Your task to perform on an android device: open app "eBay: The shopping marketplace" Image 0: 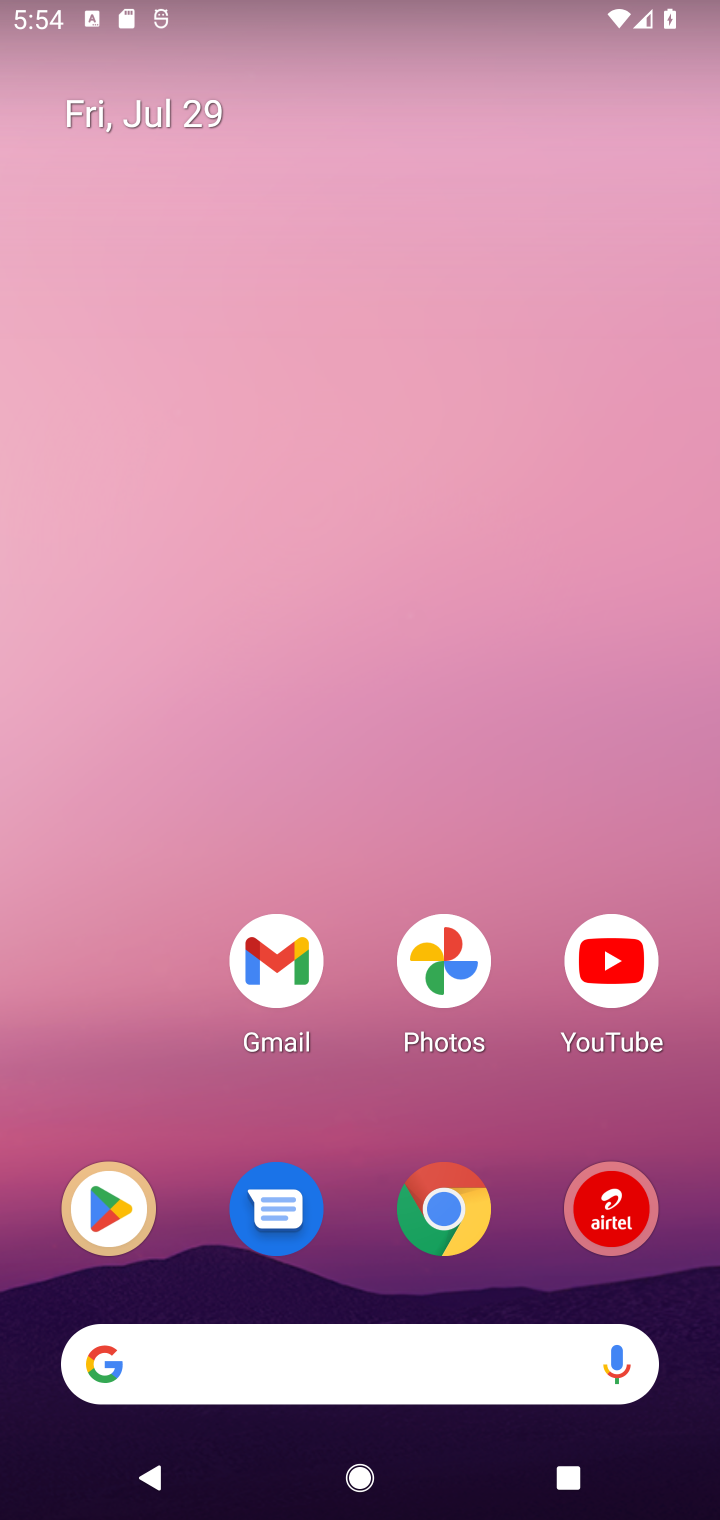
Step 0: click (89, 1210)
Your task to perform on an android device: open app "eBay: The shopping marketplace" Image 1: 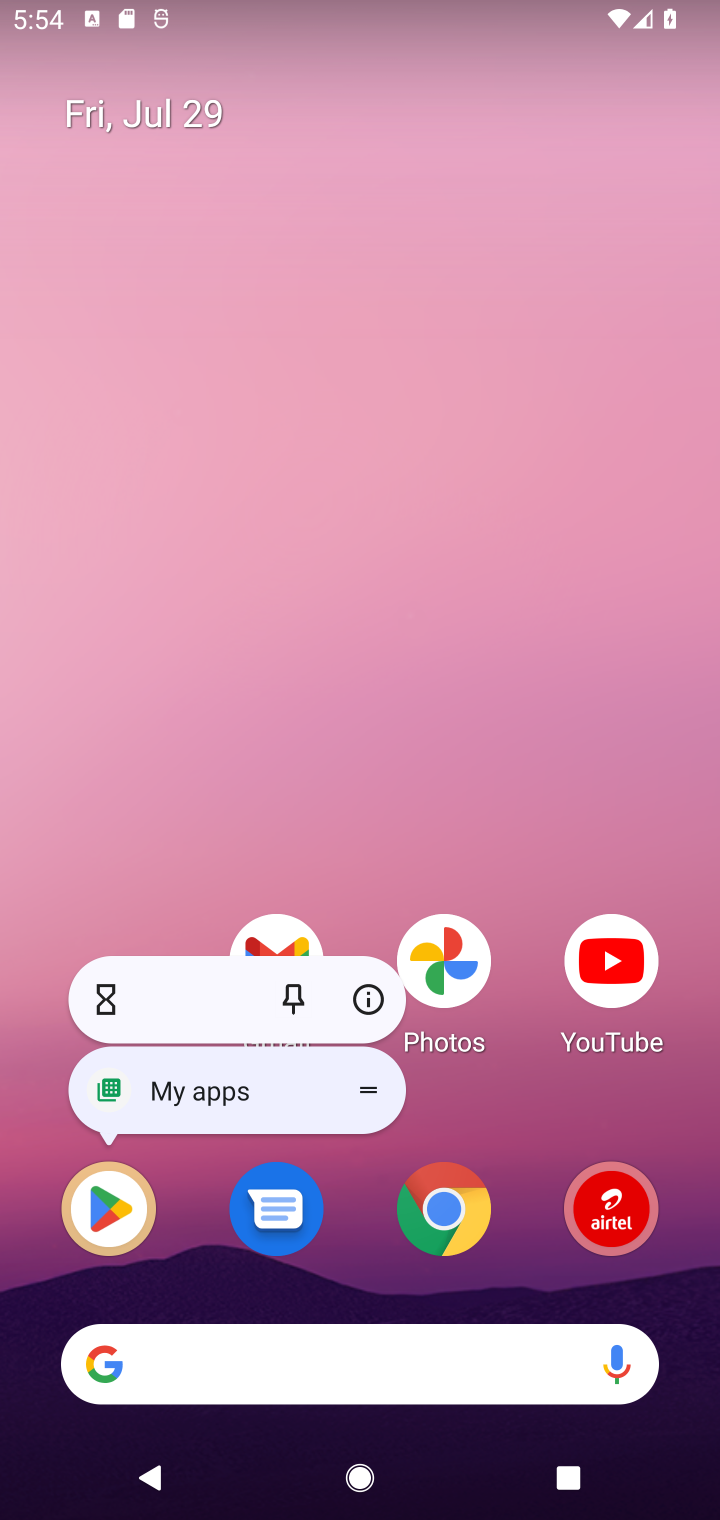
Step 1: click (95, 1229)
Your task to perform on an android device: open app "eBay: The shopping marketplace" Image 2: 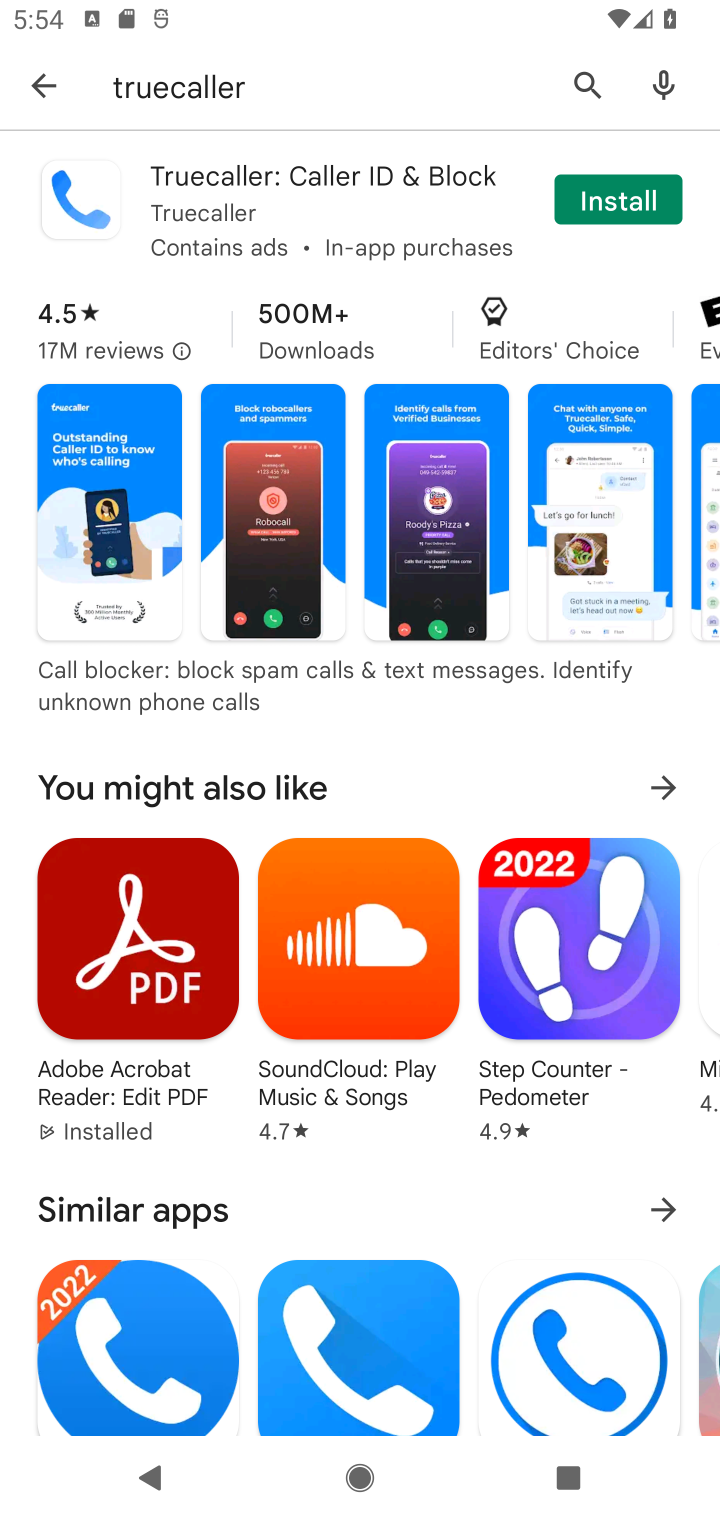
Step 2: click (597, 83)
Your task to perform on an android device: open app "eBay: The shopping marketplace" Image 3: 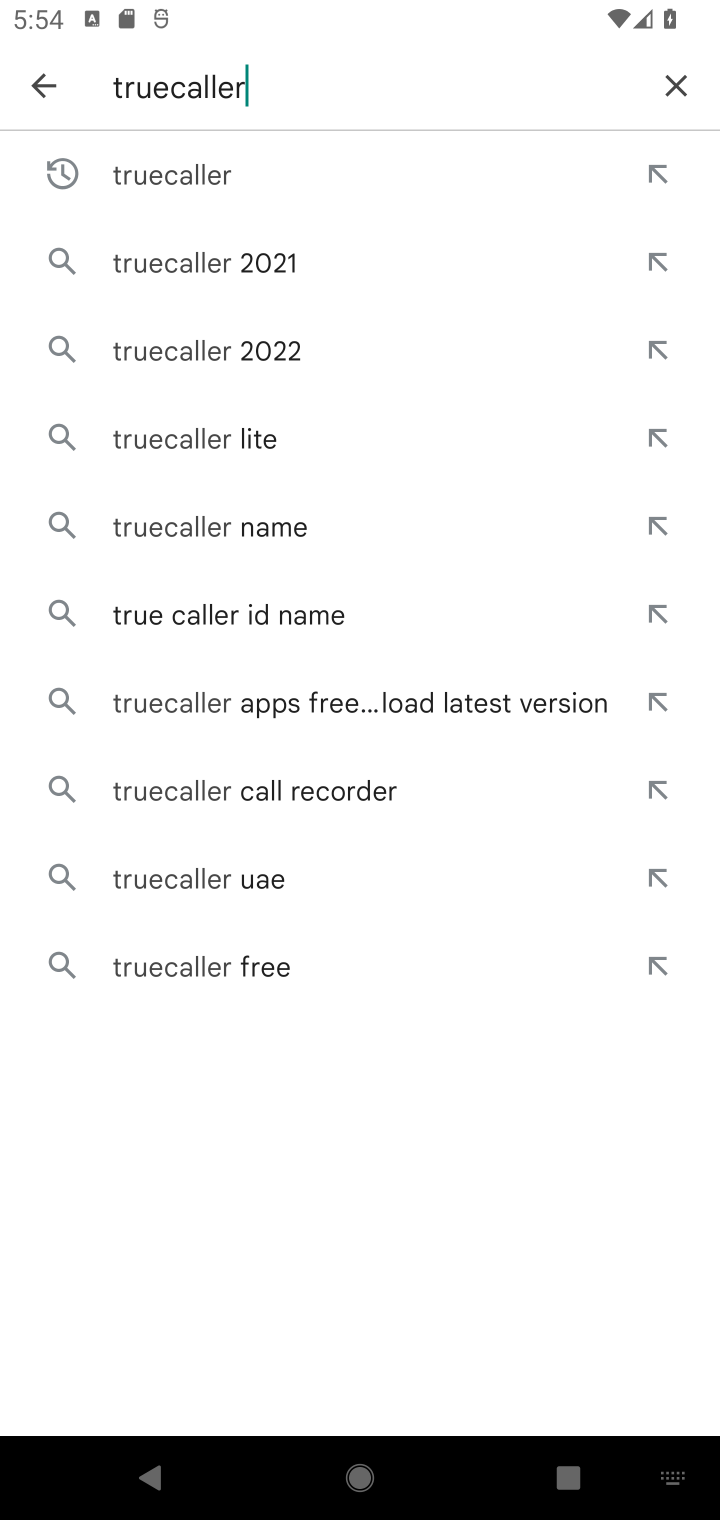
Step 3: click (667, 79)
Your task to perform on an android device: open app "eBay: The shopping marketplace" Image 4: 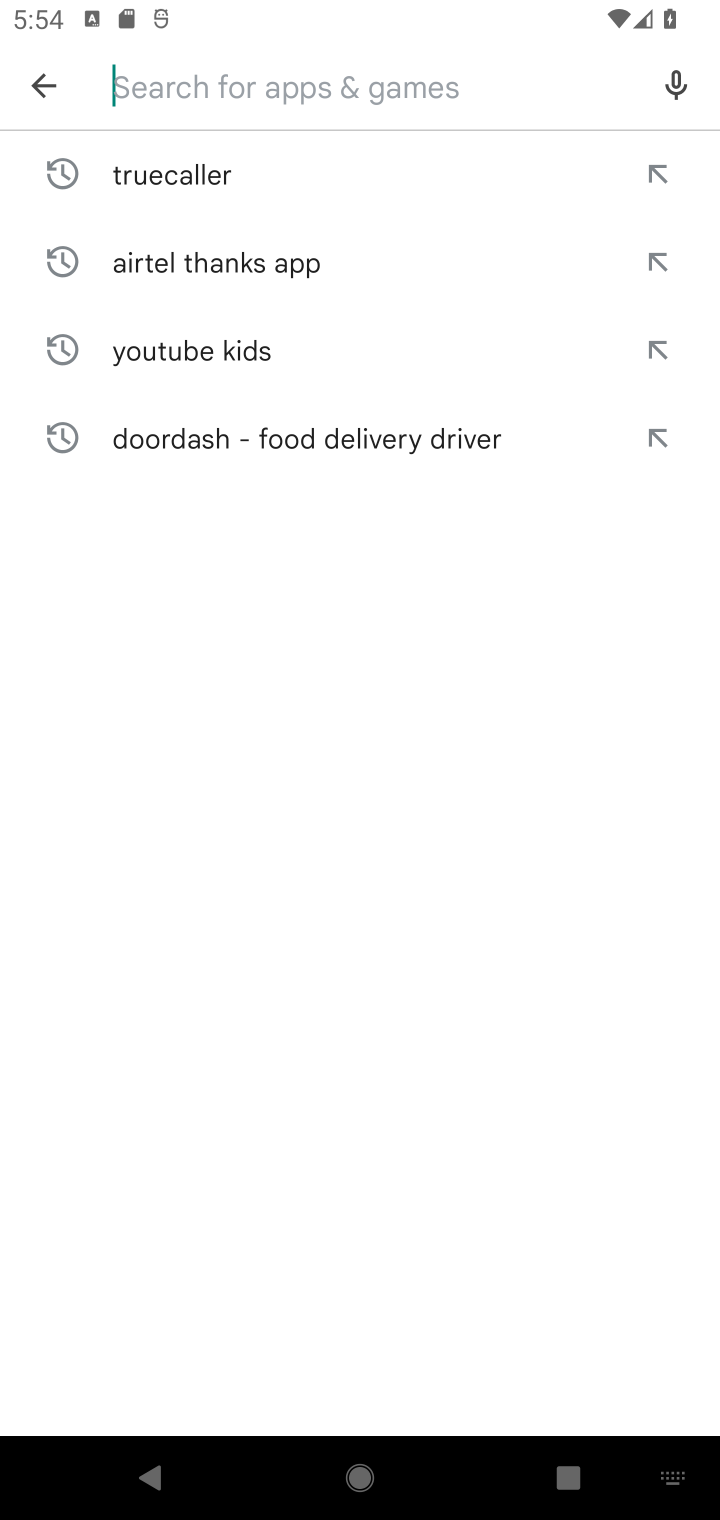
Step 4: type "eBay: The shopping marketplace"
Your task to perform on an android device: open app "eBay: The shopping marketplace" Image 5: 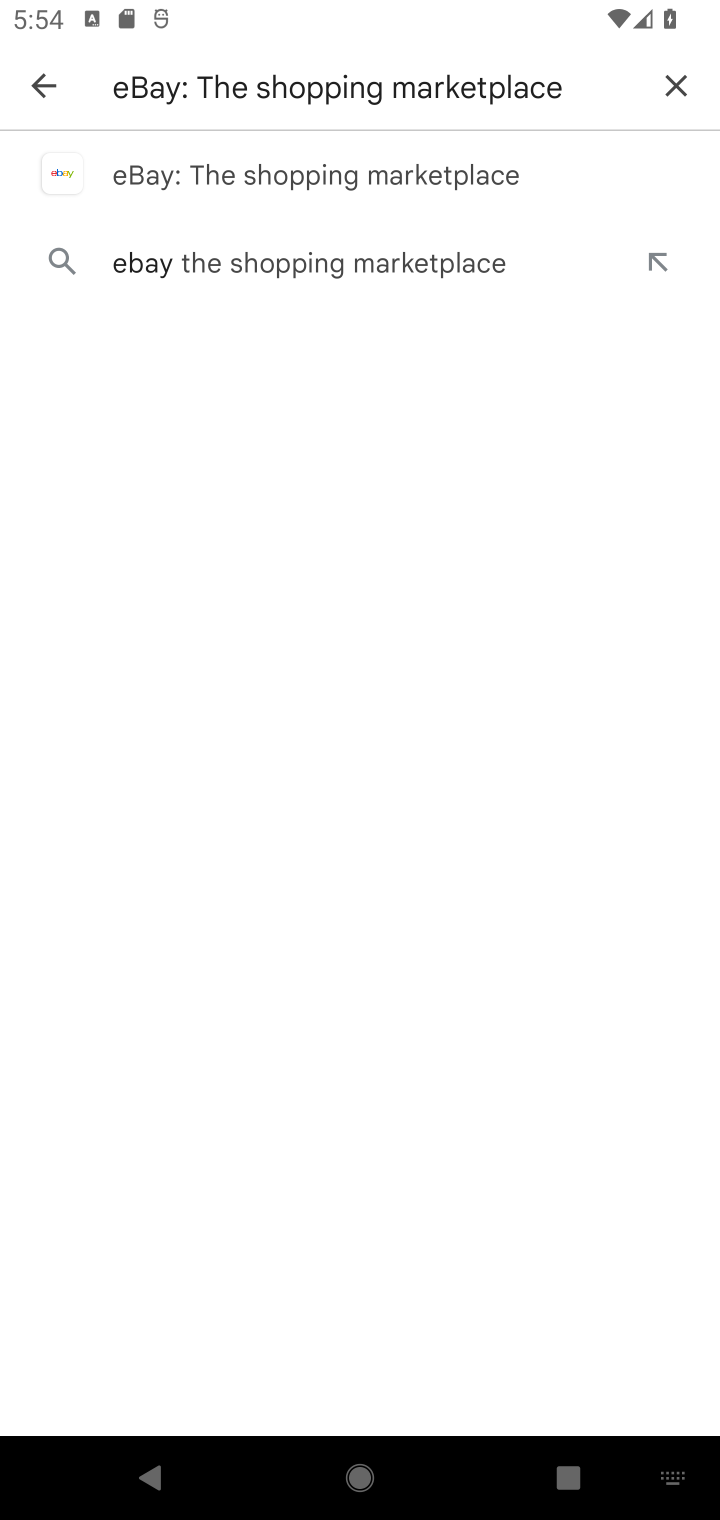
Step 5: click (195, 185)
Your task to perform on an android device: open app "eBay: The shopping marketplace" Image 6: 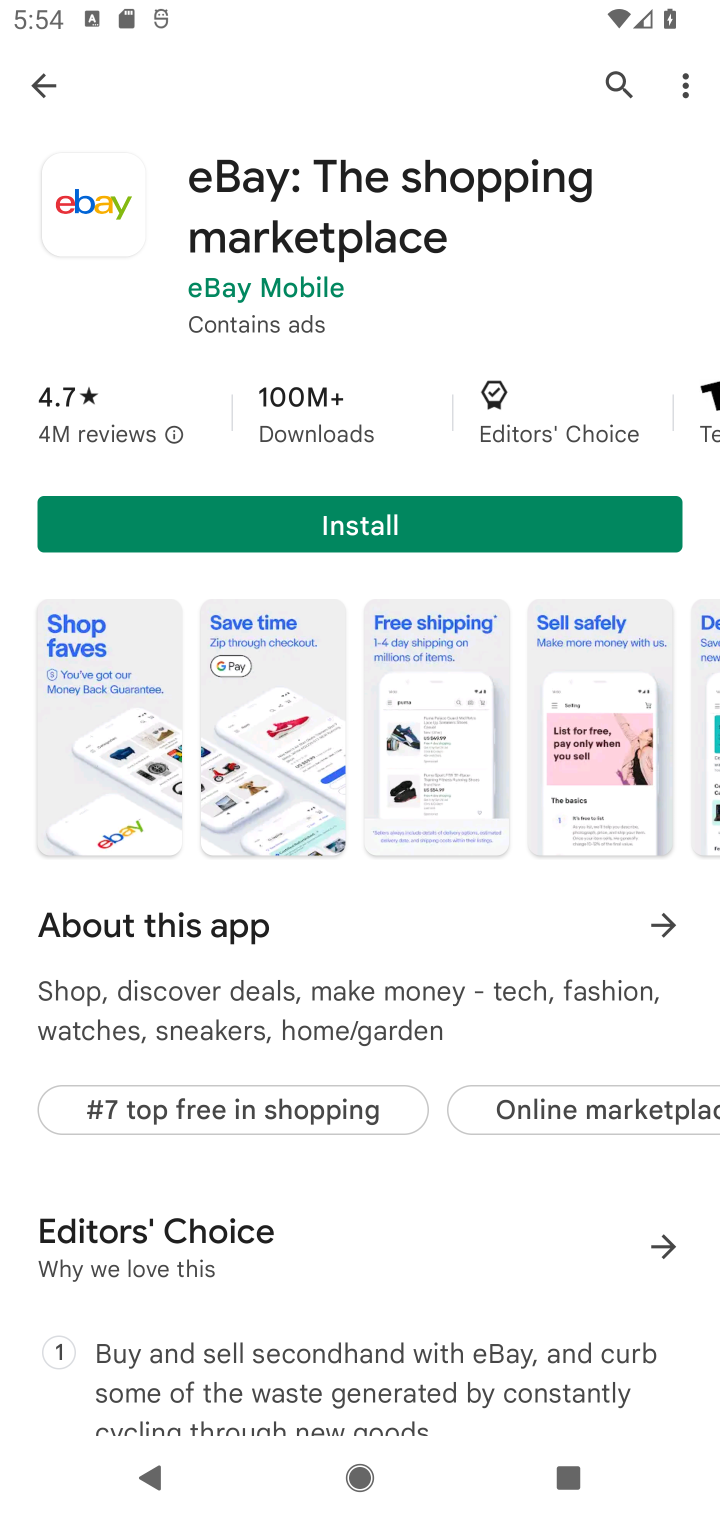
Step 6: task complete